Your task to perform on an android device: Open battery settings Image 0: 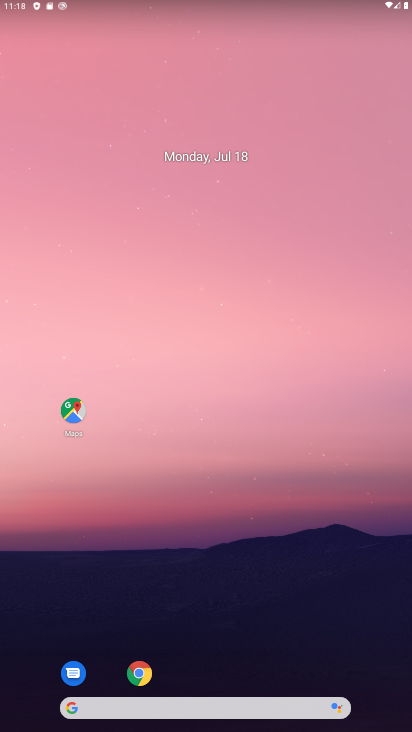
Step 0: press home button
Your task to perform on an android device: Open battery settings Image 1: 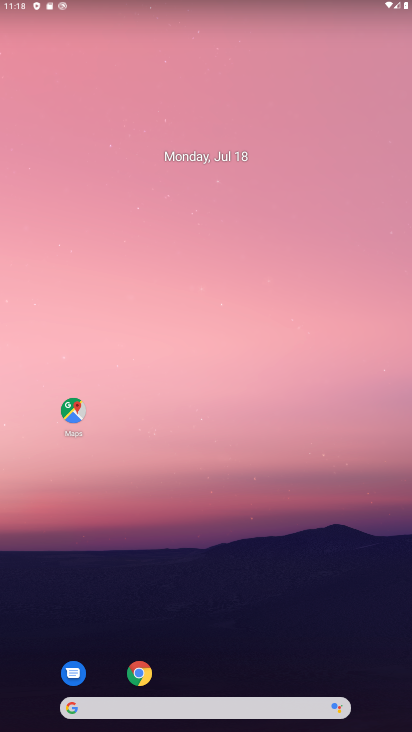
Step 1: drag from (239, 687) to (207, 86)
Your task to perform on an android device: Open battery settings Image 2: 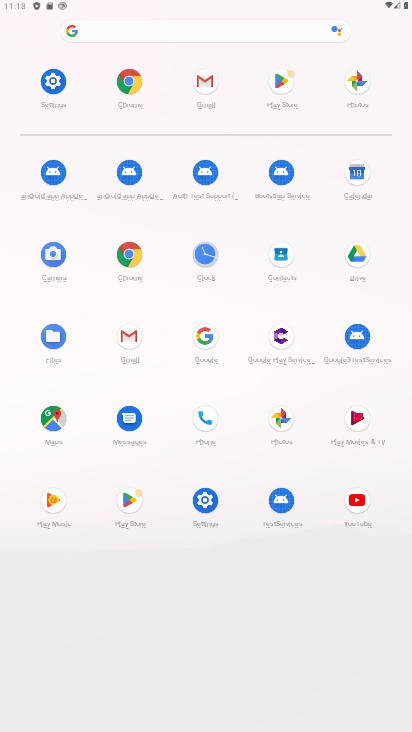
Step 2: click (50, 79)
Your task to perform on an android device: Open battery settings Image 3: 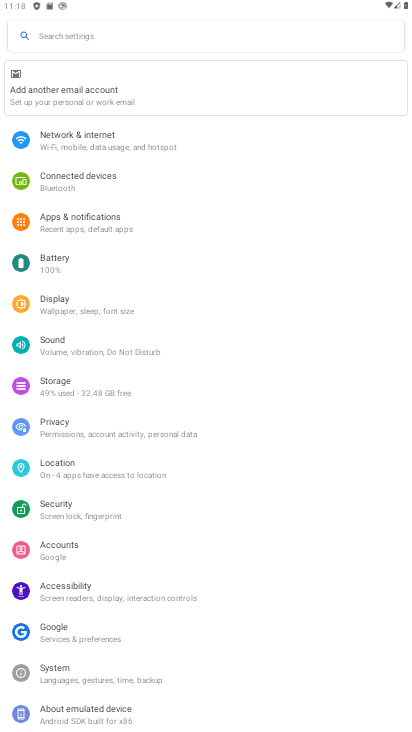
Step 3: click (62, 263)
Your task to perform on an android device: Open battery settings Image 4: 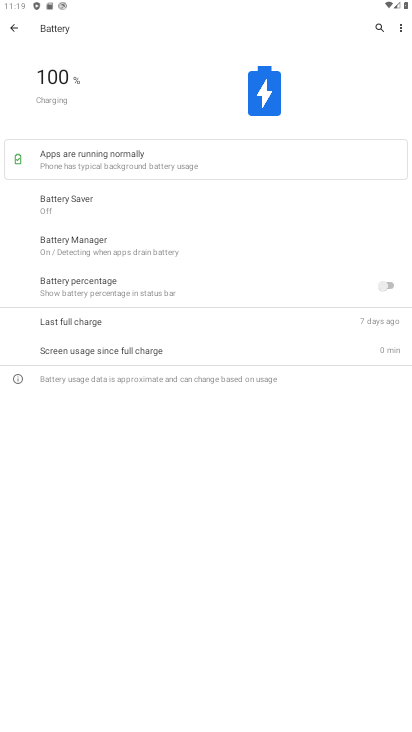
Step 4: task complete